Your task to perform on an android device: set default search engine in the chrome app Image 0: 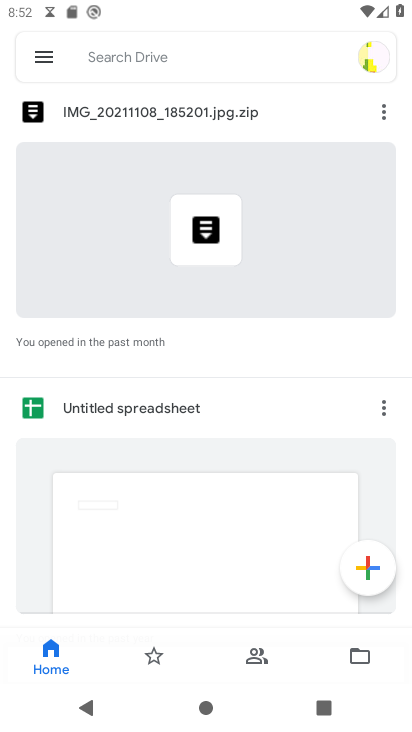
Step 0: press home button
Your task to perform on an android device: set default search engine in the chrome app Image 1: 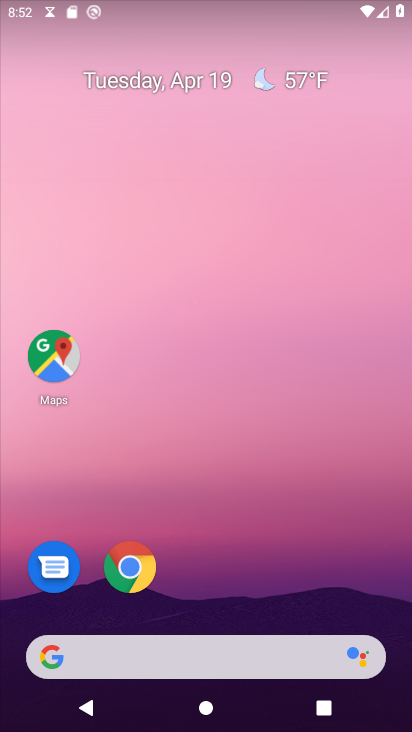
Step 1: click (128, 564)
Your task to perform on an android device: set default search engine in the chrome app Image 2: 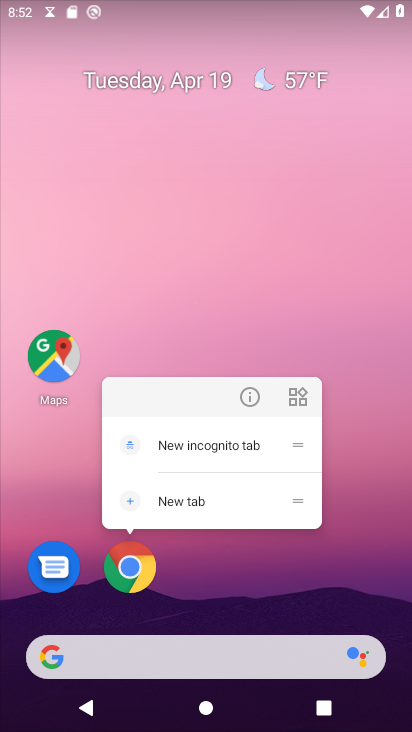
Step 2: click (128, 564)
Your task to perform on an android device: set default search engine in the chrome app Image 3: 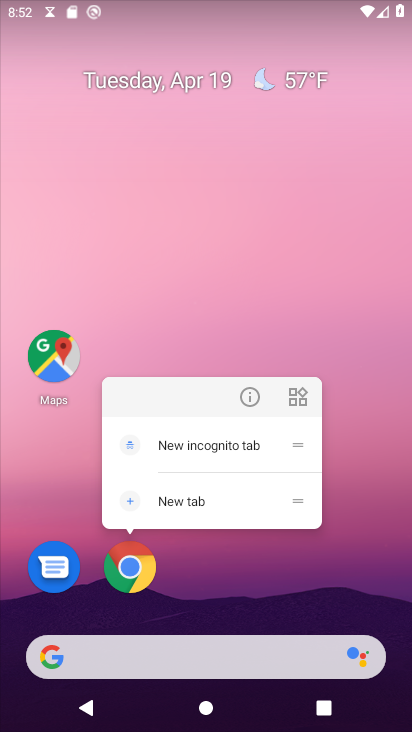
Step 3: click (128, 564)
Your task to perform on an android device: set default search engine in the chrome app Image 4: 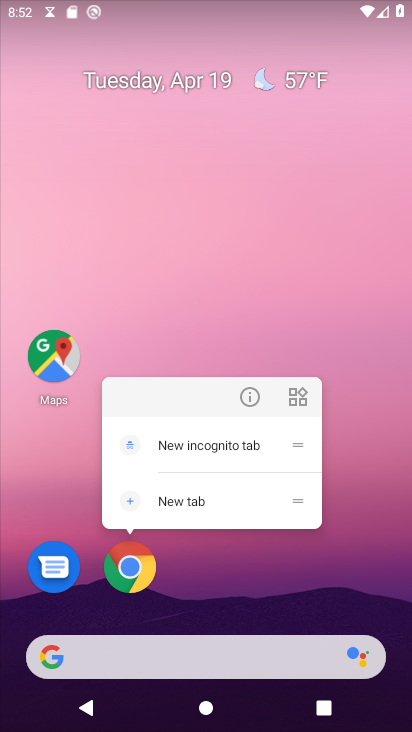
Step 4: click (127, 564)
Your task to perform on an android device: set default search engine in the chrome app Image 5: 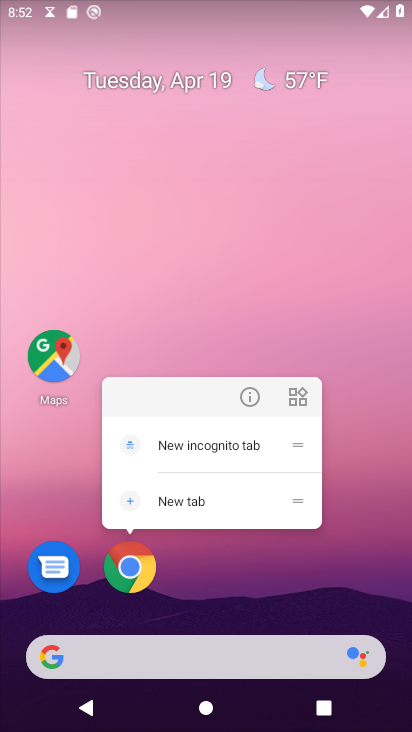
Step 5: click (127, 564)
Your task to perform on an android device: set default search engine in the chrome app Image 6: 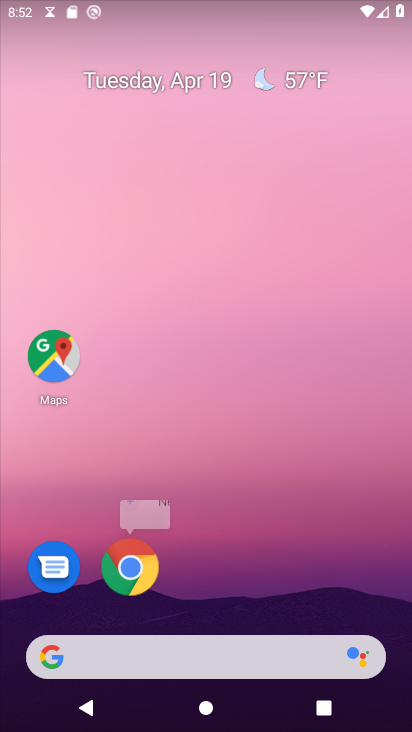
Step 6: click (127, 564)
Your task to perform on an android device: set default search engine in the chrome app Image 7: 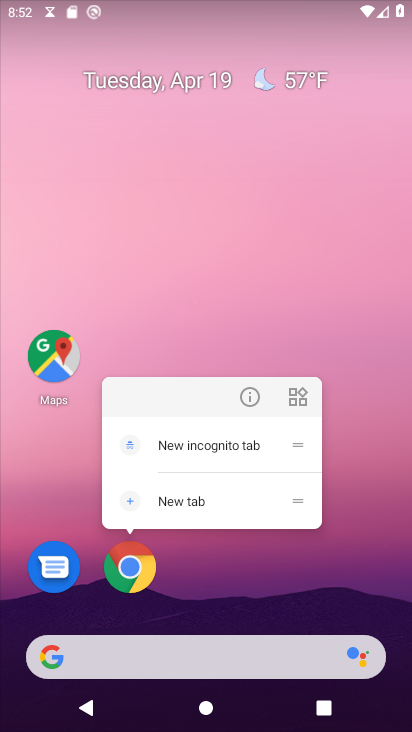
Step 7: click (127, 564)
Your task to perform on an android device: set default search engine in the chrome app Image 8: 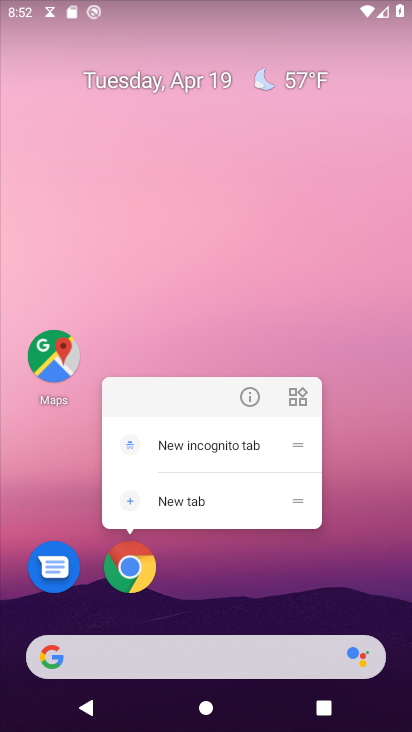
Step 8: click (127, 564)
Your task to perform on an android device: set default search engine in the chrome app Image 9: 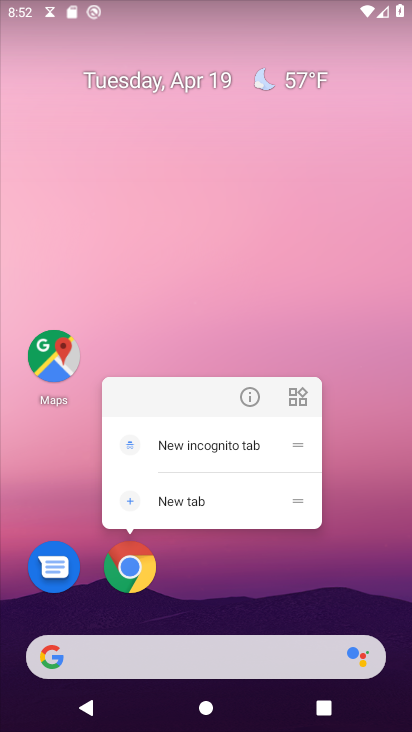
Step 9: click (127, 564)
Your task to perform on an android device: set default search engine in the chrome app Image 10: 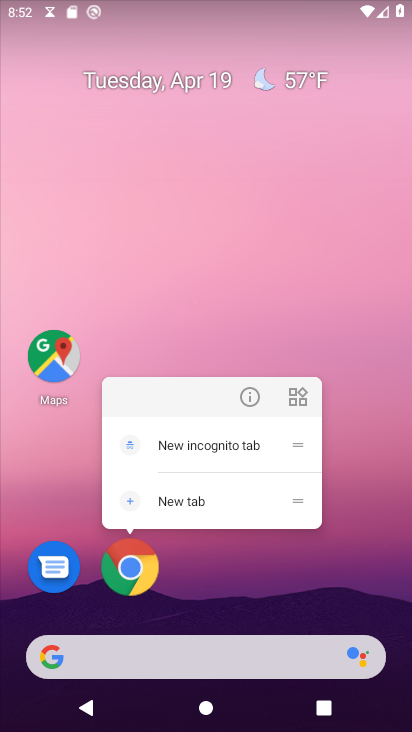
Step 10: click (127, 564)
Your task to perform on an android device: set default search engine in the chrome app Image 11: 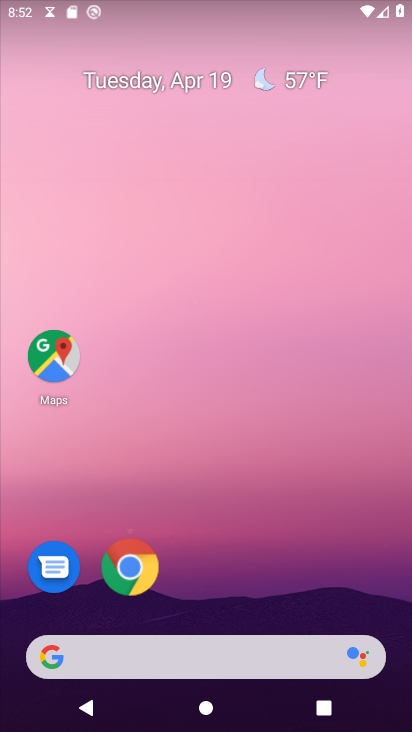
Step 11: drag from (128, 564) to (173, 569)
Your task to perform on an android device: set default search engine in the chrome app Image 12: 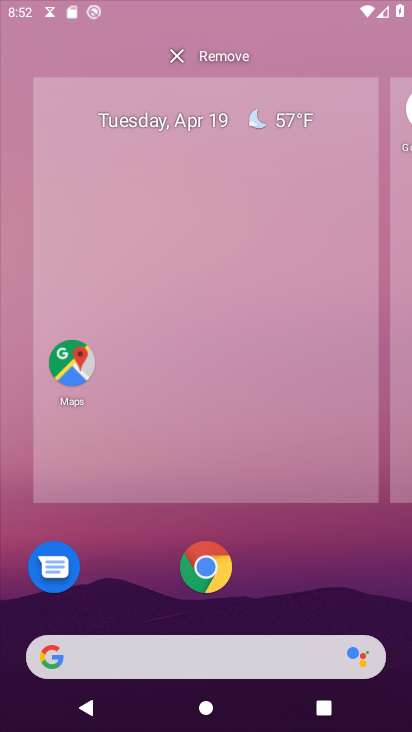
Step 12: click (135, 576)
Your task to perform on an android device: set default search engine in the chrome app Image 13: 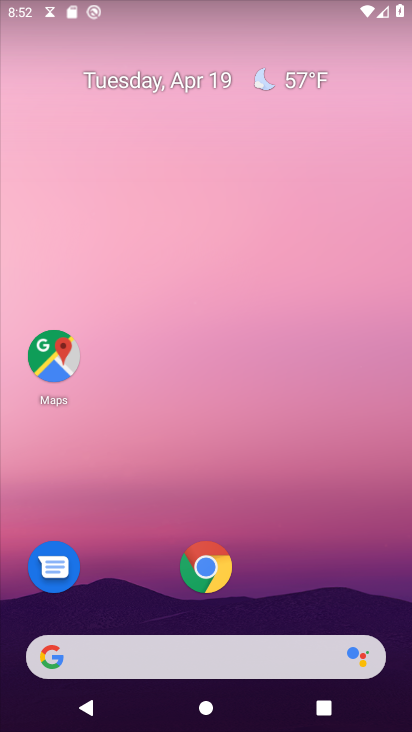
Step 13: click (213, 578)
Your task to perform on an android device: set default search engine in the chrome app Image 14: 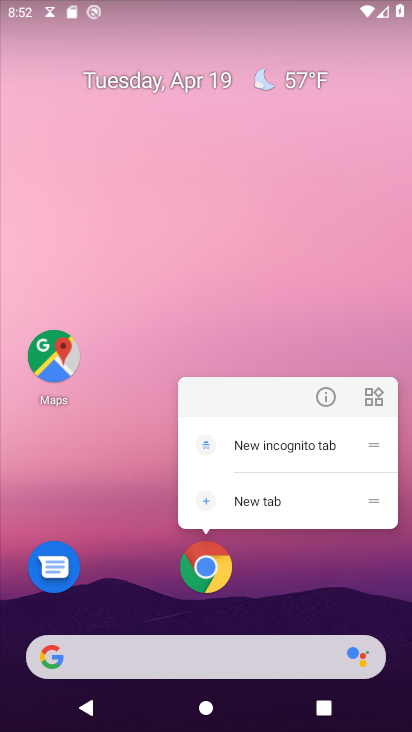
Step 14: click (213, 579)
Your task to perform on an android device: set default search engine in the chrome app Image 15: 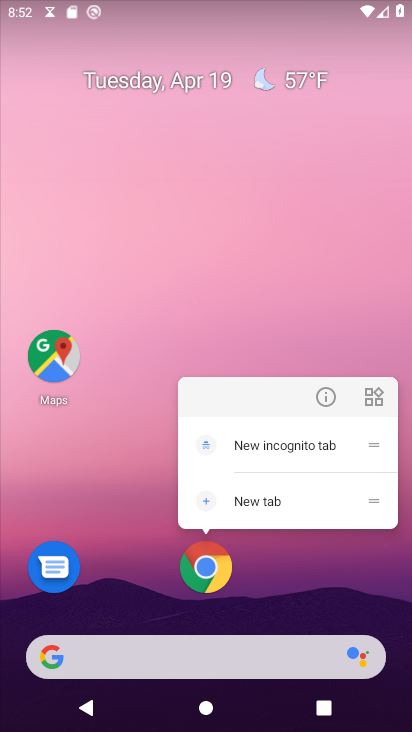
Step 15: click (213, 579)
Your task to perform on an android device: set default search engine in the chrome app Image 16: 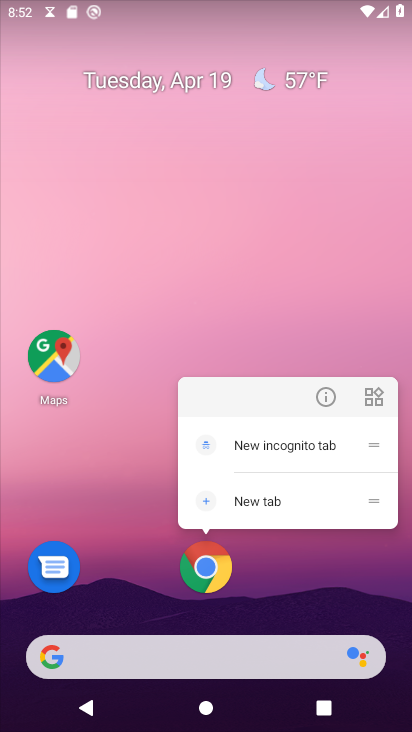
Step 16: click (213, 579)
Your task to perform on an android device: set default search engine in the chrome app Image 17: 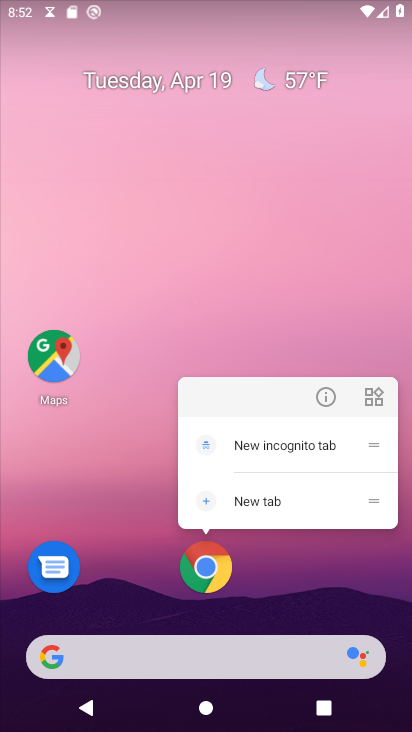
Step 17: click (205, 577)
Your task to perform on an android device: set default search engine in the chrome app Image 18: 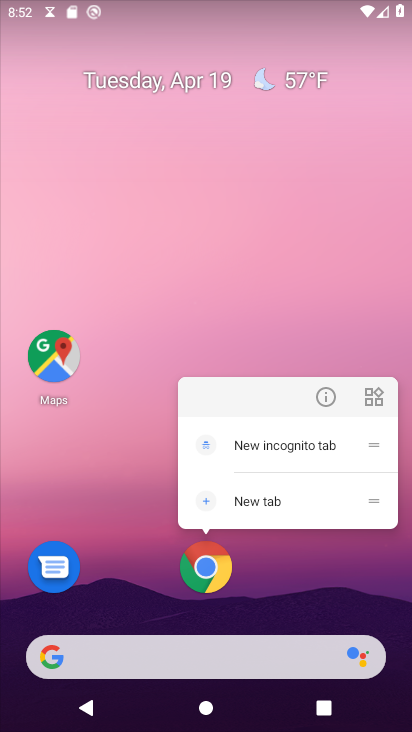
Step 18: click (206, 559)
Your task to perform on an android device: set default search engine in the chrome app Image 19: 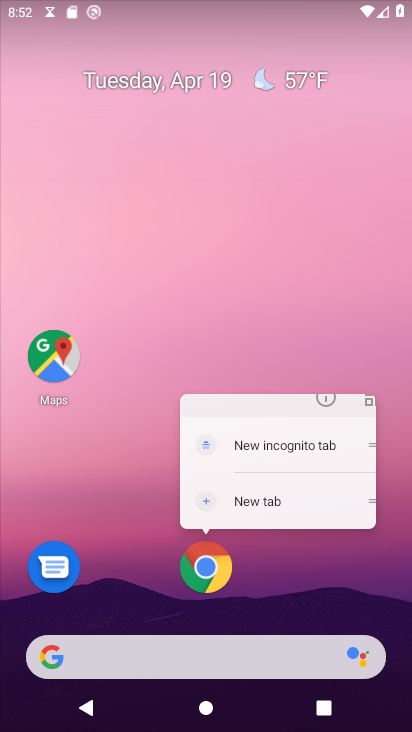
Step 19: click (206, 559)
Your task to perform on an android device: set default search engine in the chrome app Image 20: 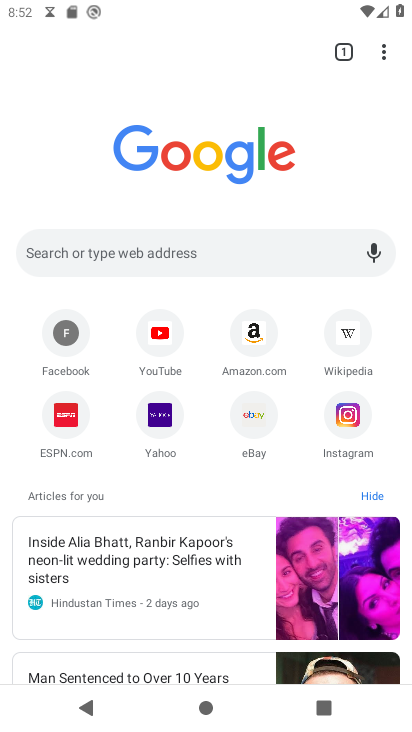
Step 20: drag from (373, 56) to (265, 457)
Your task to perform on an android device: set default search engine in the chrome app Image 21: 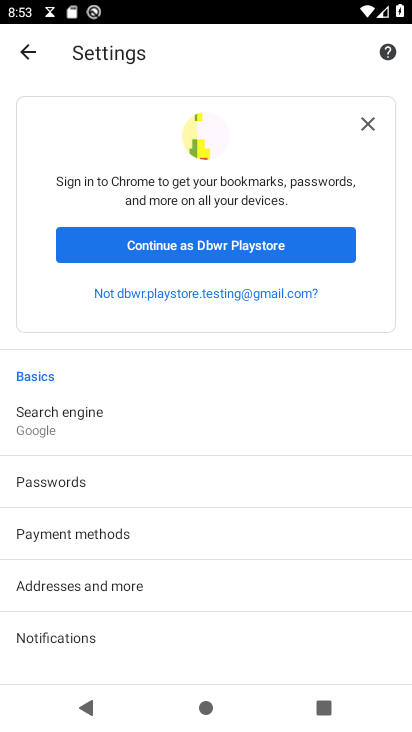
Step 21: click (153, 425)
Your task to perform on an android device: set default search engine in the chrome app Image 22: 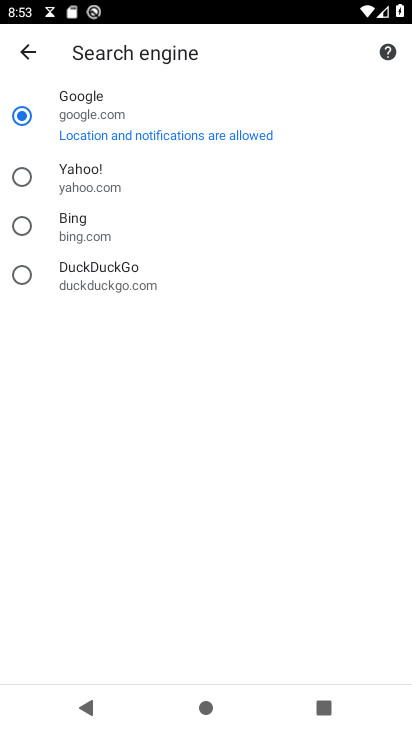
Step 22: task complete